Your task to perform on an android device: Do I have any events tomorrow? Image 0: 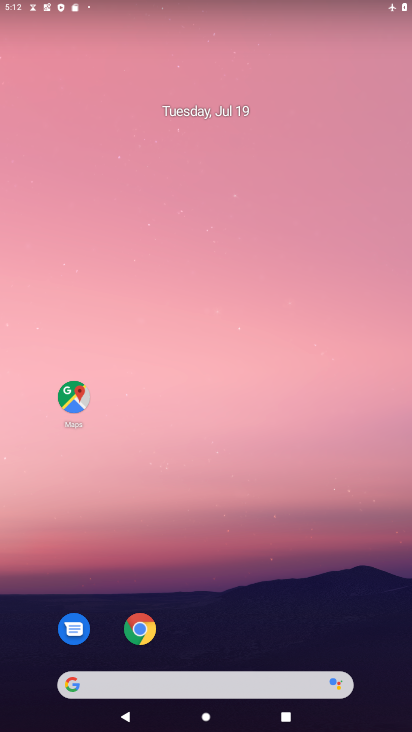
Step 0: press home button
Your task to perform on an android device: Do I have any events tomorrow? Image 1: 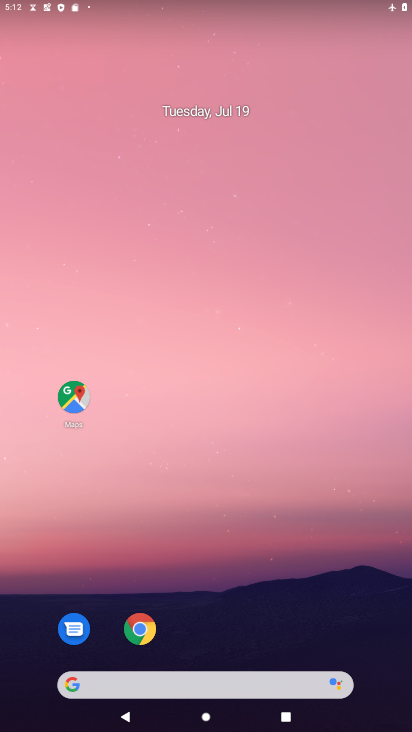
Step 1: drag from (281, 640) to (110, 121)
Your task to perform on an android device: Do I have any events tomorrow? Image 2: 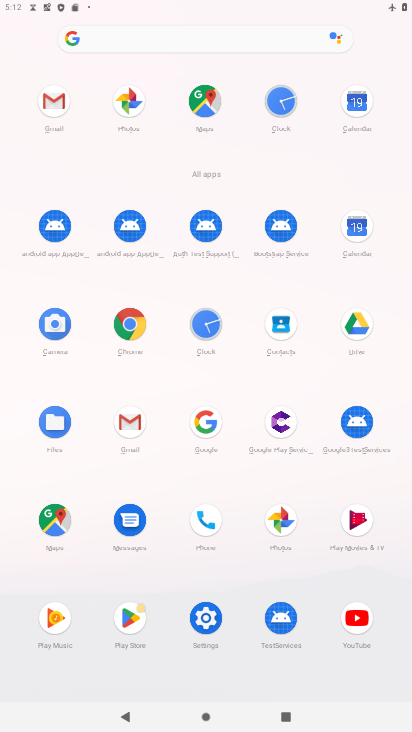
Step 2: click (367, 232)
Your task to perform on an android device: Do I have any events tomorrow? Image 3: 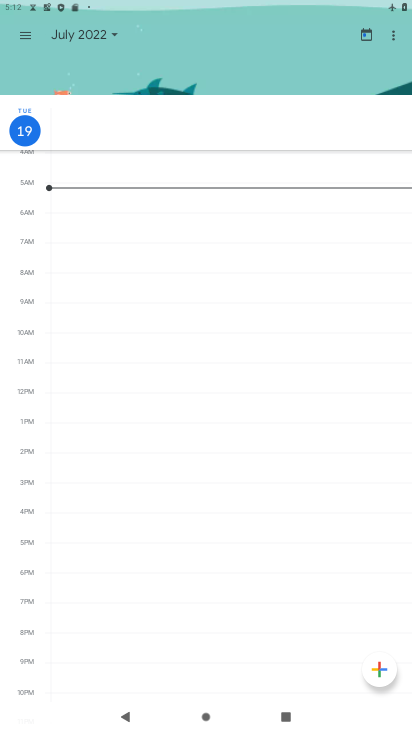
Step 3: click (103, 31)
Your task to perform on an android device: Do I have any events tomorrow? Image 4: 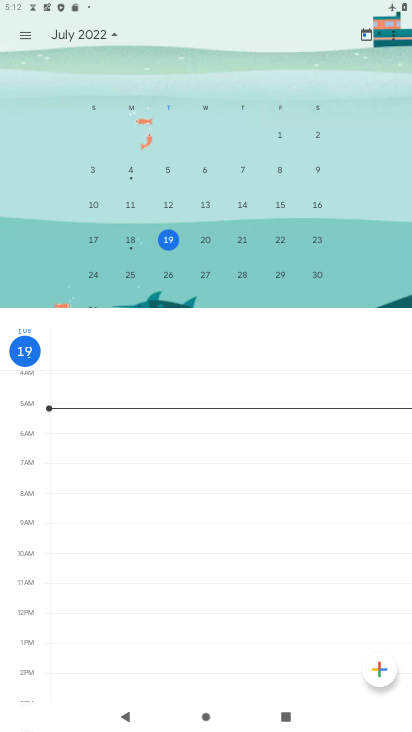
Step 4: click (204, 233)
Your task to perform on an android device: Do I have any events tomorrow? Image 5: 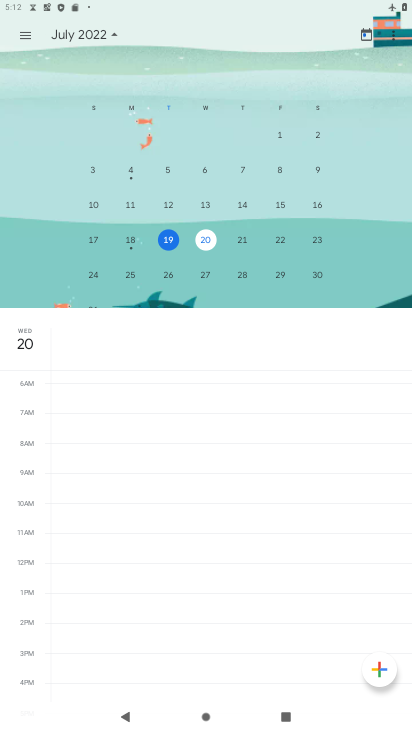
Step 5: task complete